Your task to perform on an android device: turn off airplane mode Image 0: 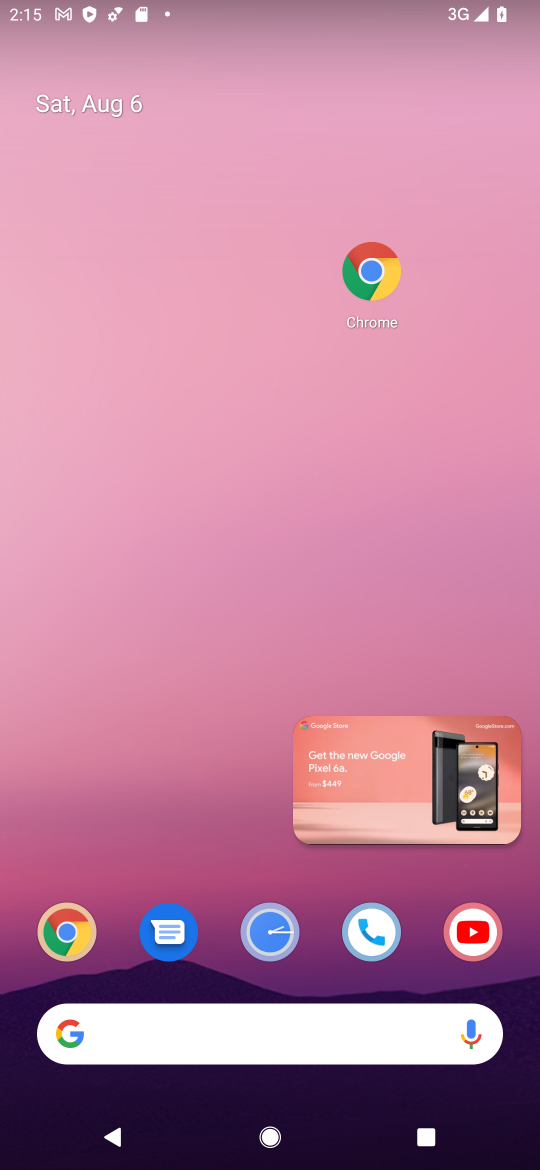
Step 0: click (507, 736)
Your task to perform on an android device: turn off airplane mode Image 1: 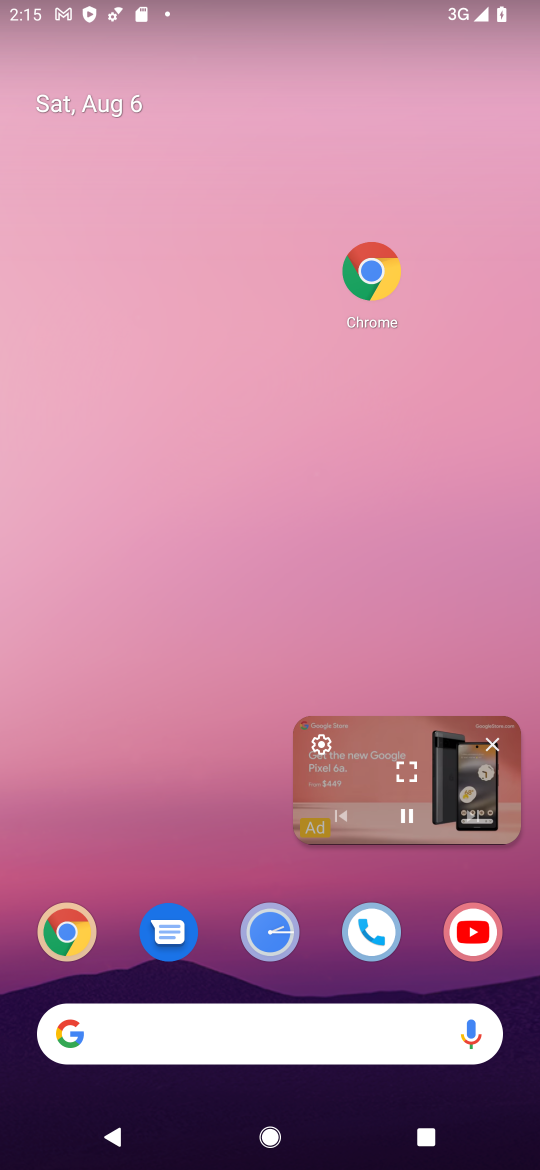
Step 1: click (495, 734)
Your task to perform on an android device: turn off airplane mode Image 2: 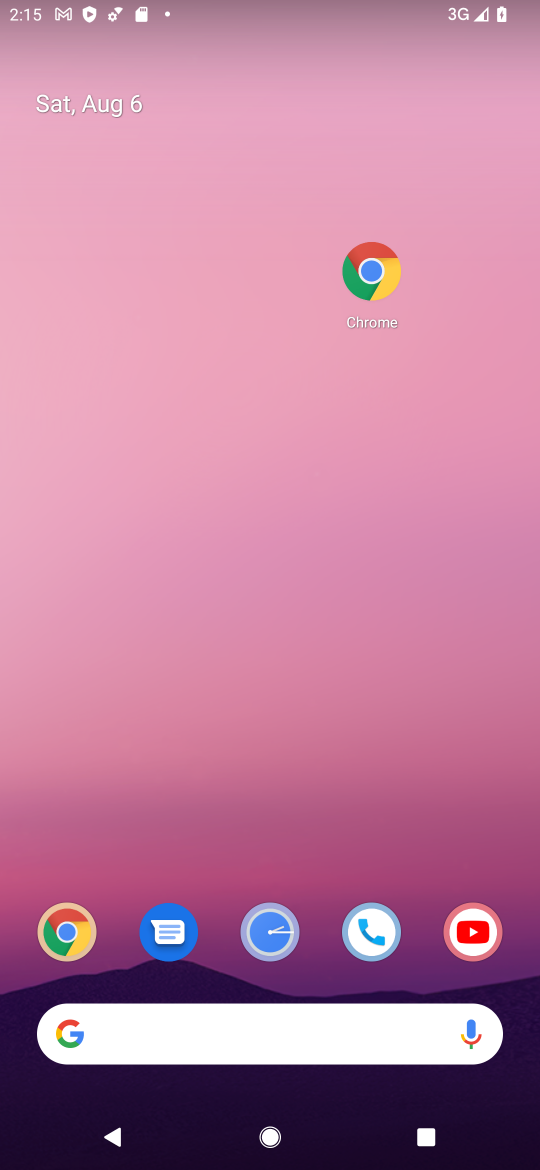
Step 2: drag from (219, 964) to (153, 98)
Your task to perform on an android device: turn off airplane mode Image 3: 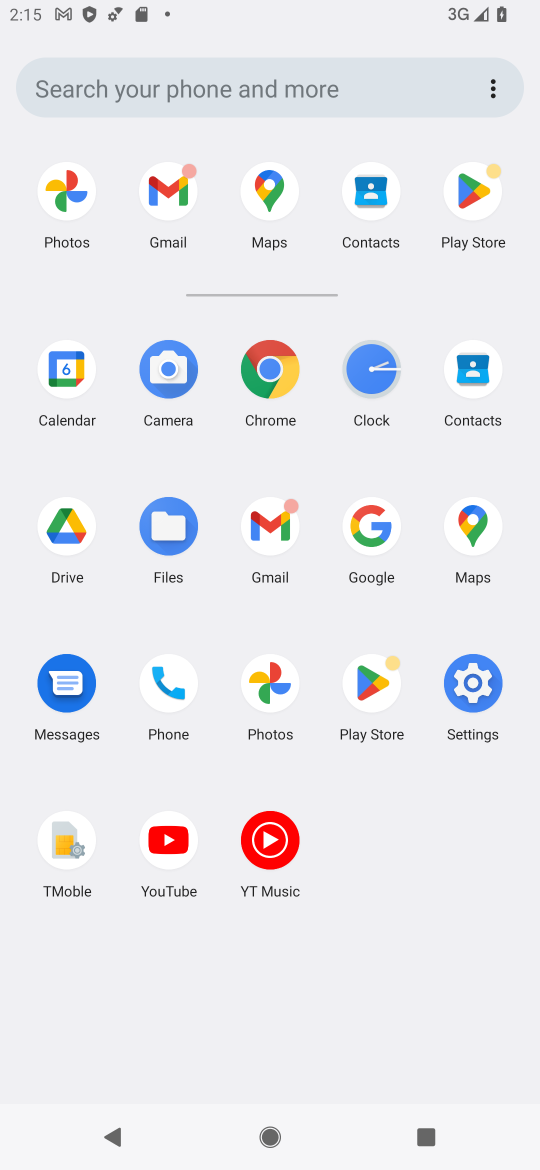
Step 3: drag from (313, 44) to (530, 1048)
Your task to perform on an android device: turn off airplane mode Image 4: 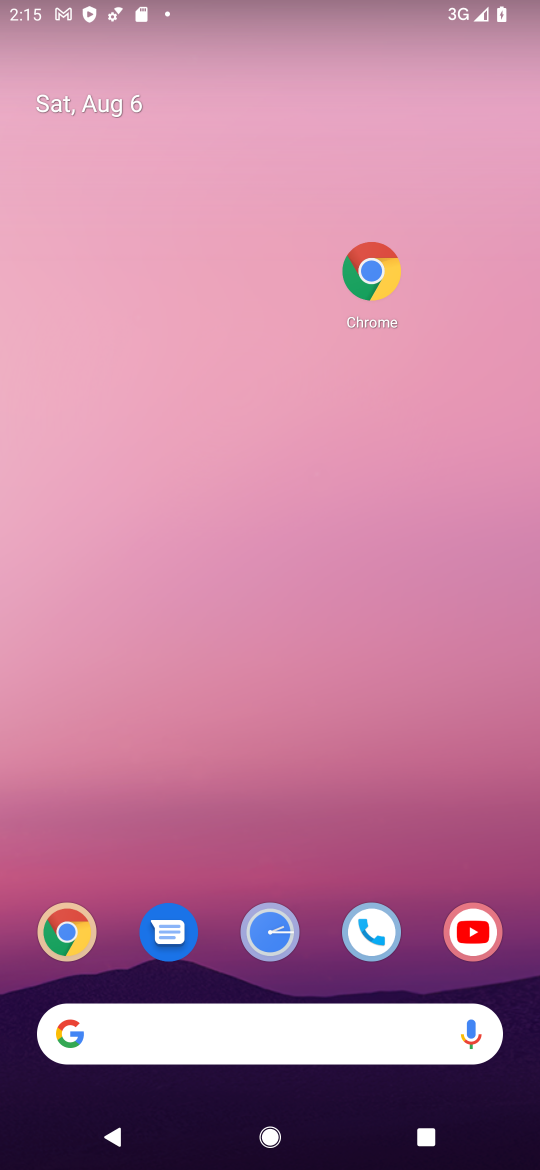
Step 4: drag from (258, 1) to (330, 946)
Your task to perform on an android device: turn off airplane mode Image 5: 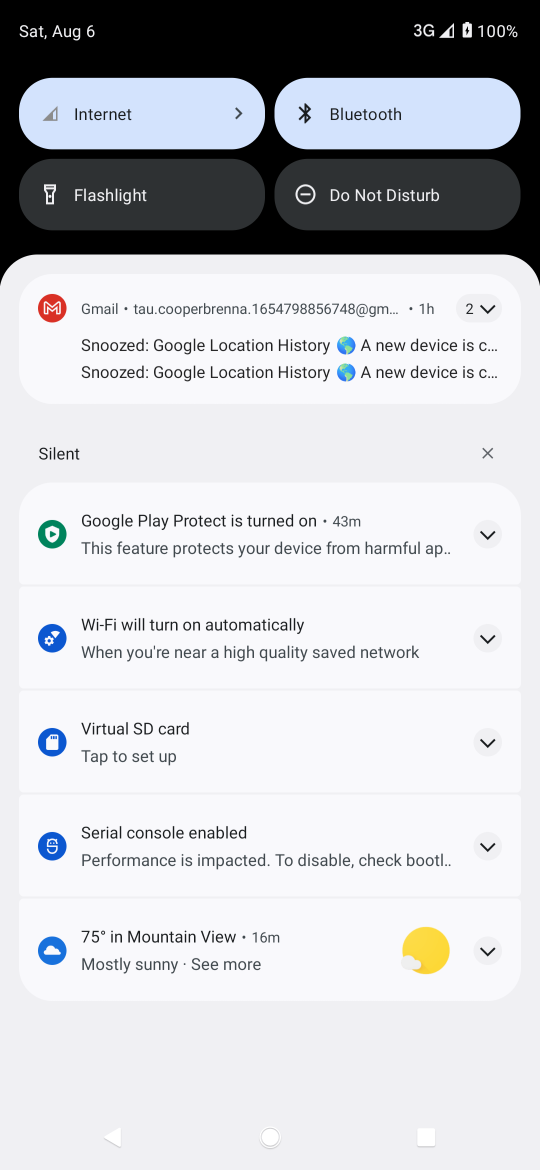
Step 5: click (147, 260)
Your task to perform on an android device: turn off airplane mode Image 6: 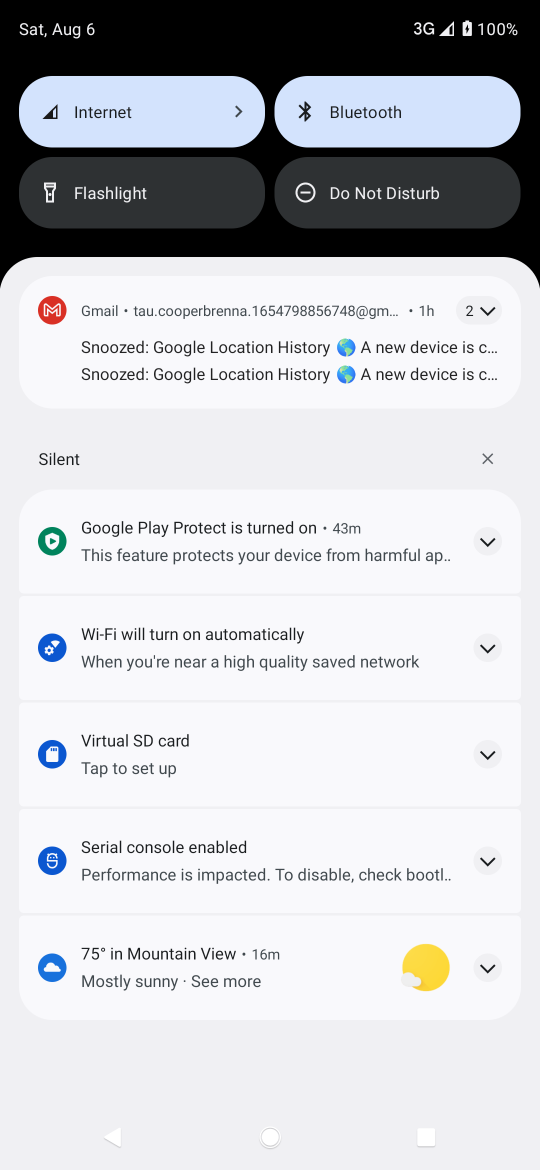
Step 6: task complete